Your task to perform on an android device: make emails show in primary in the gmail app Image 0: 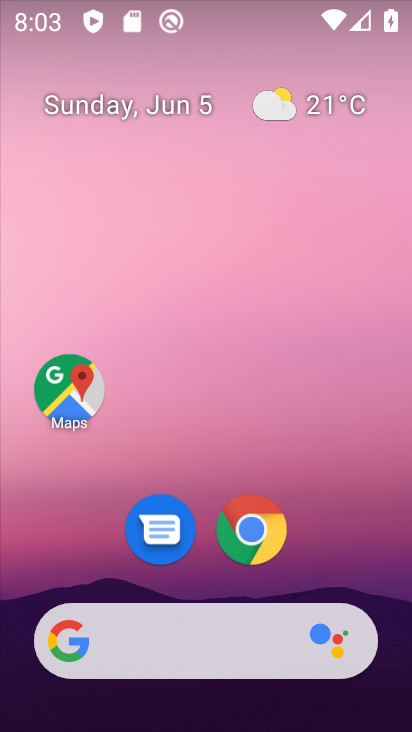
Step 0: drag from (218, 404) to (273, 29)
Your task to perform on an android device: make emails show in primary in the gmail app Image 1: 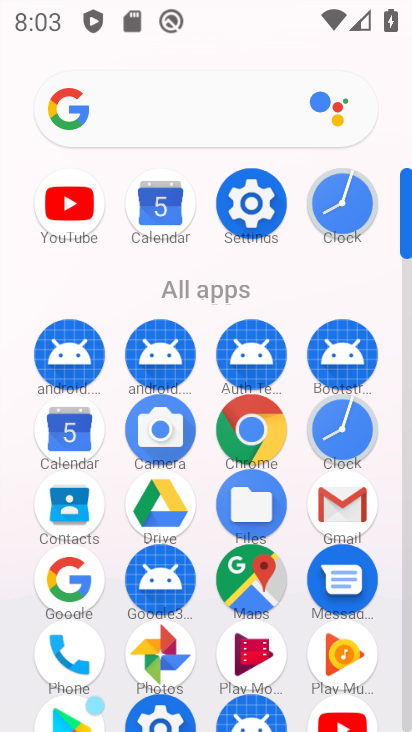
Step 1: click (336, 483)
Your task to perform on an android device: make emails show in primary in the gmail app Image 2: 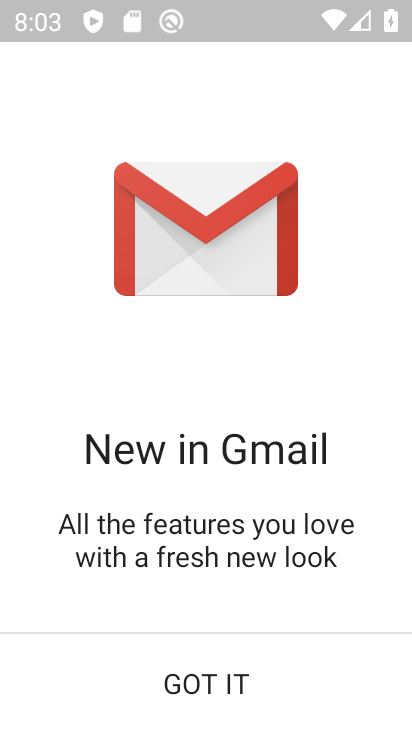
Step 2: click (198, 644)
Your task to perform on an android device: make emails show in primary in the gmail app Image 3: 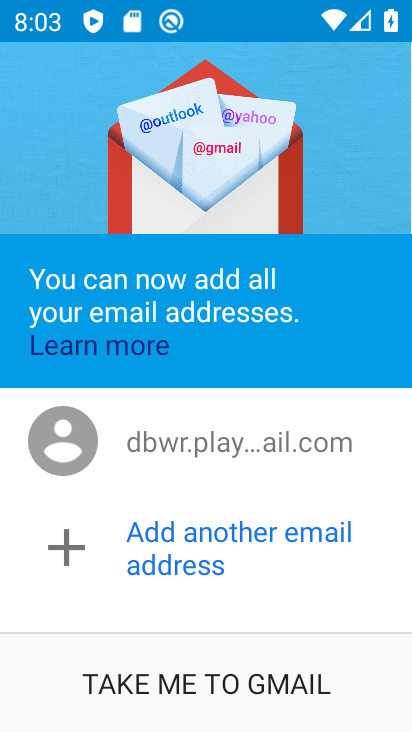
Step 3: click (197, 661)
Your task to perform on an android device: make emails show in primary in the gmail app Image 4: 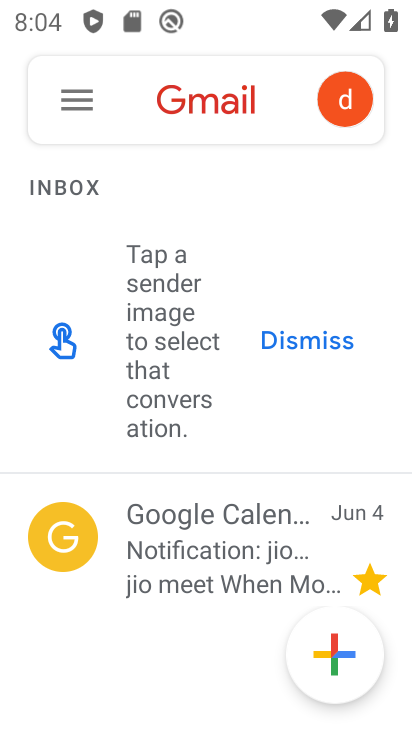
Step 4: click (64, 90)
Your task to perform on an android device: make emails show in primary in the gmail app Image 5: 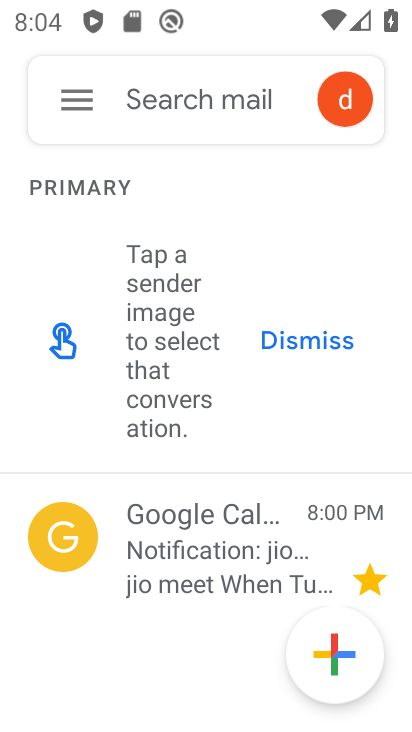
Step 5: click (72, 98)
Your task to perform on an android device: make emails show in primary in the gmail app Image 6: 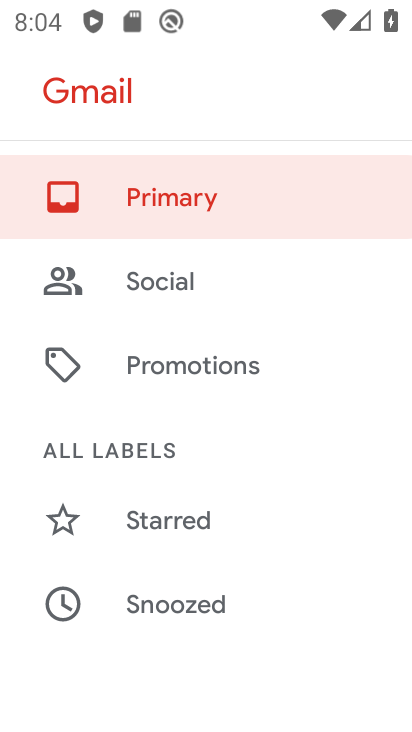
Step 6: drag from (186, 624) to (398, 4)
Your task to perform on an android device: make emails show in primary in the gmail app Image 7: 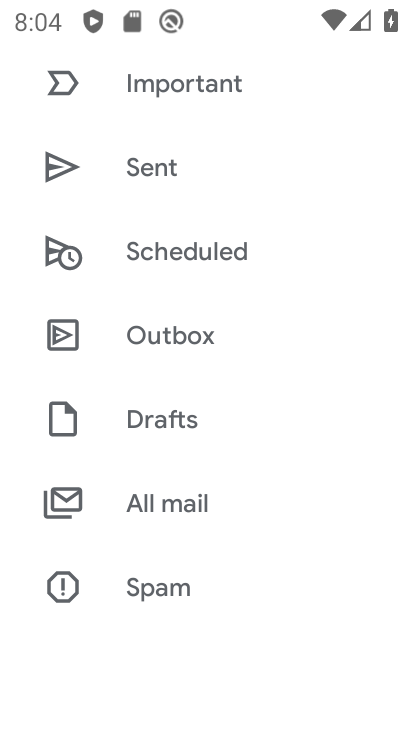
Step 7: drag from (192, 577) to (278, 48)
Your task to perform on an android device: make emails show in primary in the gmail app Image 8: 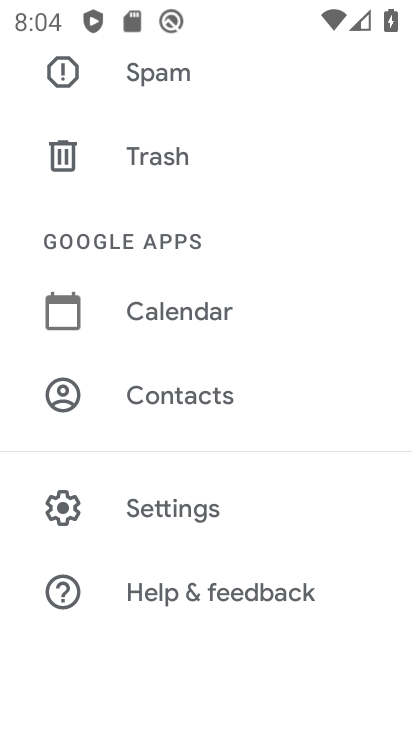
Step 8: click (236, 516)
Your task to perform on an android device: make emails show in primary in the gmail app Image 9: 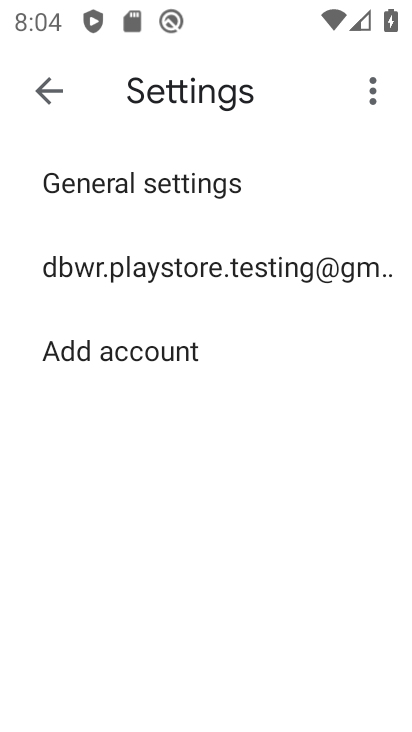
Step 9: click (174, 288)
Your task to perform on an android device: make emails show in primary in the gmail app Image 10: 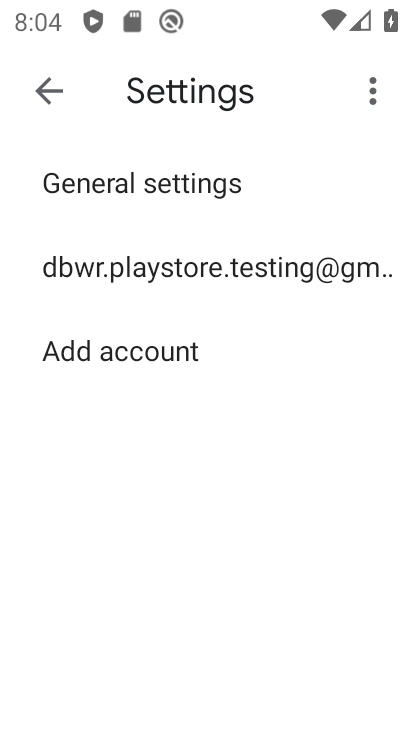
Step 10: click (177, 271)
Your task to perform on an android device: make emails show in primary in the gmail app Image 11: 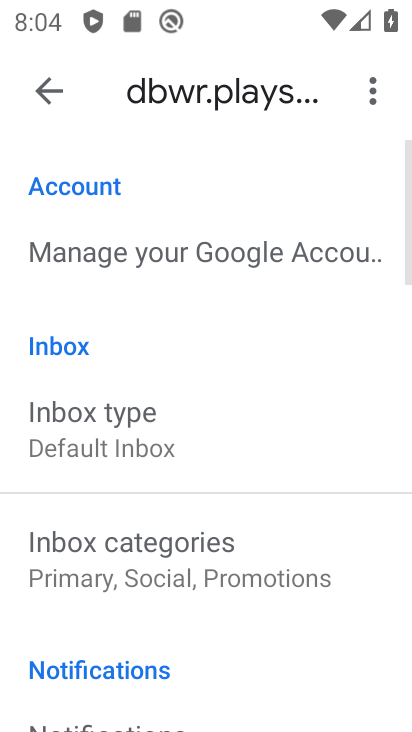
Step 11: click (134, 555)
Your task to perform on an android device: make emails show in primary in the gmail app Image 12: 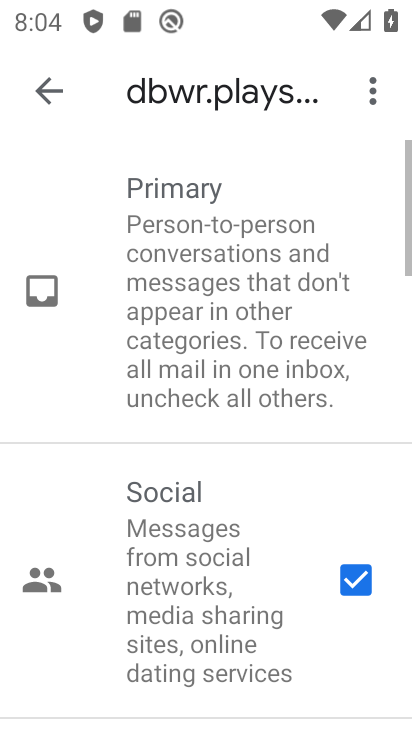
Step 12: click (108, 425)
Your task to perform on an android device: make emails show in primary in the gmail app Image 13: 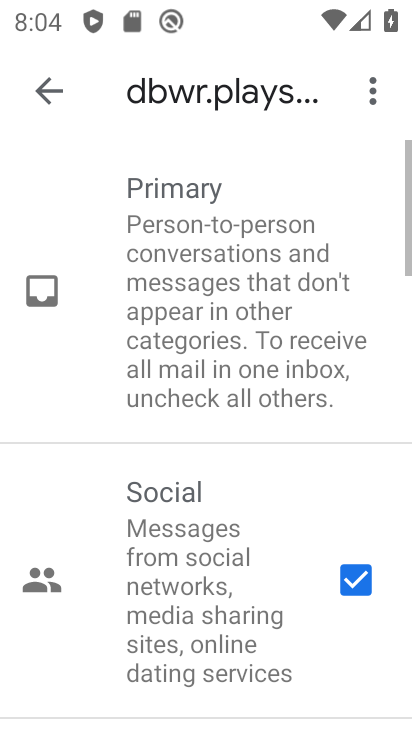
Step 13: click (362, 582)
Your task to perform on an android device: make emails show in primary in the gmail app Image 14: 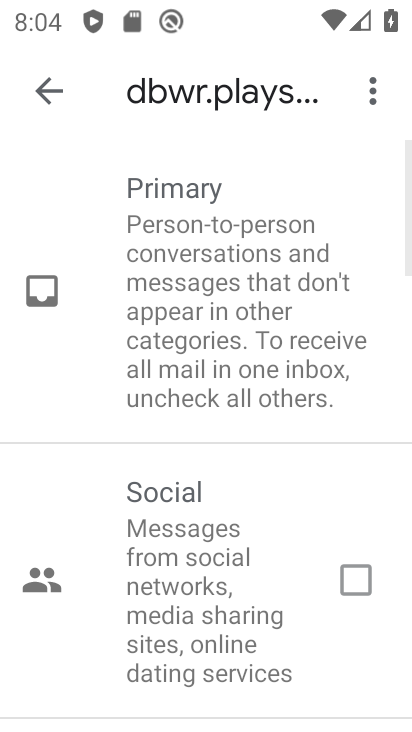
Step 14: drag from (292, 635) to (322, 108)
Your task to perform on an android device: make emails show in primary in the gmail app Image 15: 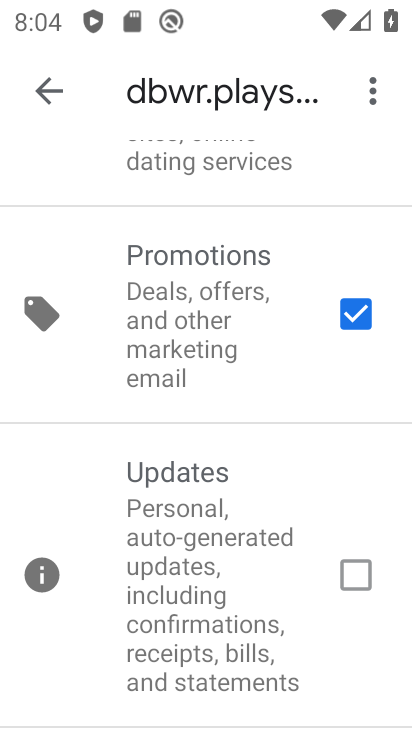
Step 15: click (353, 321)
Your task to perform on an android device: make emails show in primary in the gmail app Image 16: 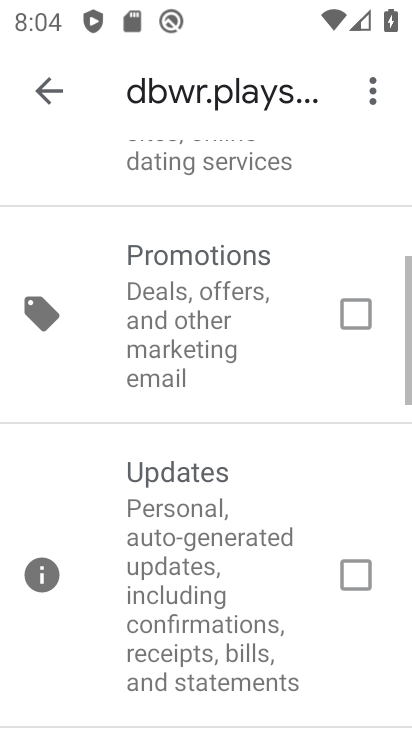
Step 16: task complete